Your task to perform on an android device: turn notification dots off Image 0: 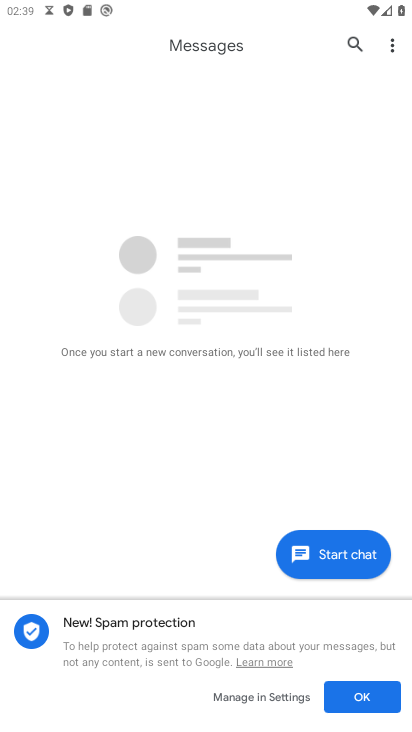
Step 0: press home button
Your task to perform on an android device: turn notification dots off Image 1: 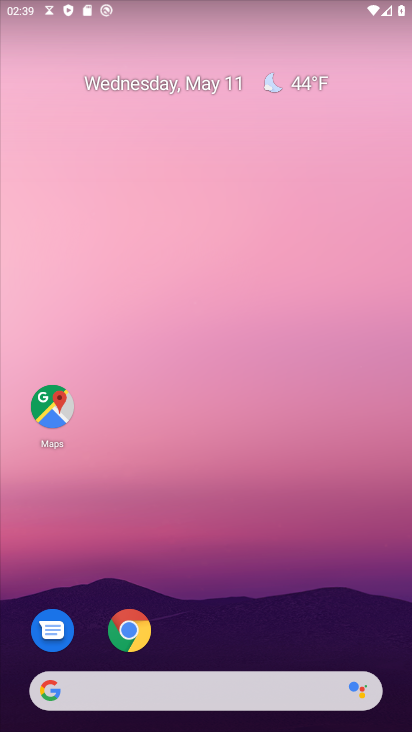
Step 1: drag from (225, 728) to (223, 264)
Your task to perform on an android device: turn notification dots off Image 2: 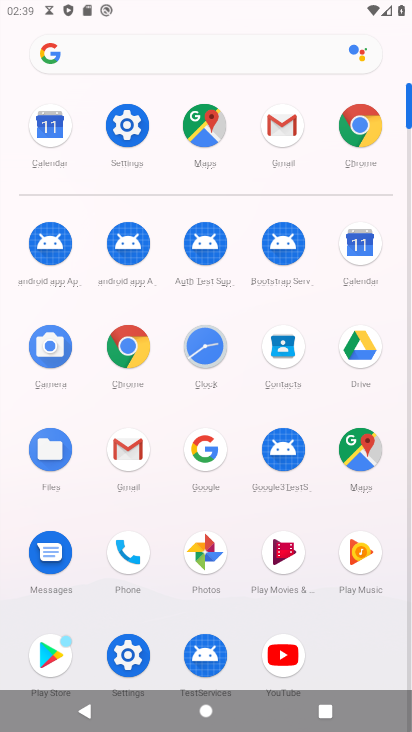
Step 2: click (130, 137)
Your task to perform on an android device: turn notification dots off Image 3: 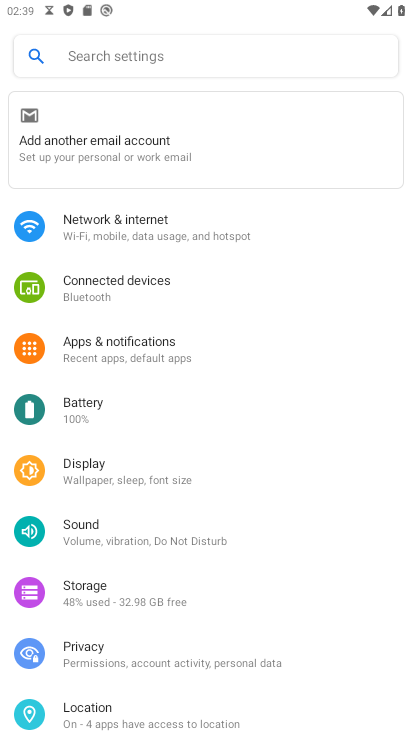
Step 3: click (143, 348)
Your task to perform on an android device: turn notification dots off Image 4: 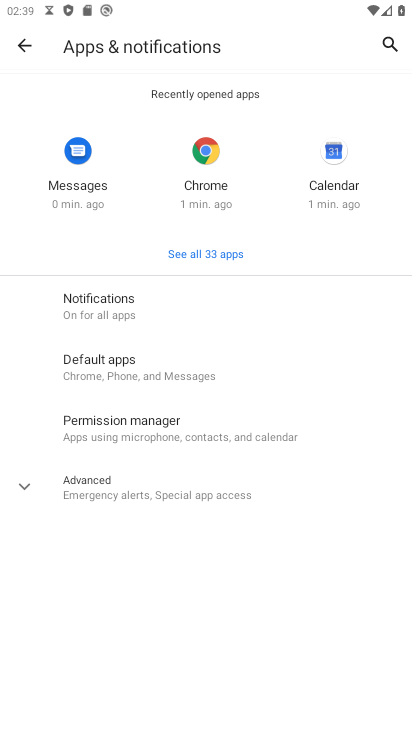
Step 4: click (91, 308)
Your task to perform on an android device: turn notification dots off Image 5: 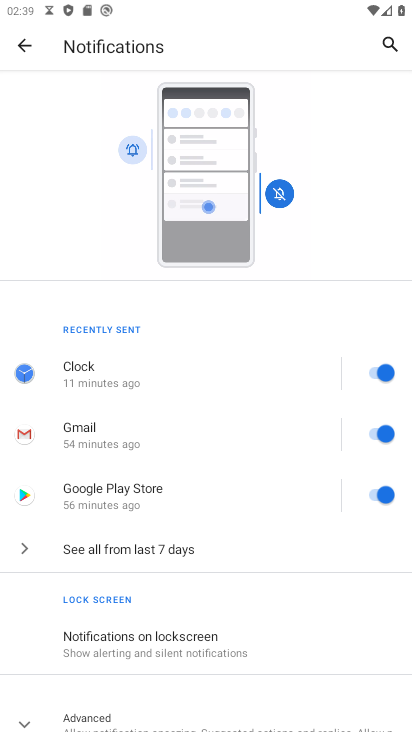
Step 5: drag from (231, 673) to (219, 332)
Your task to perform on an android device: turn notification dots off Image 6: 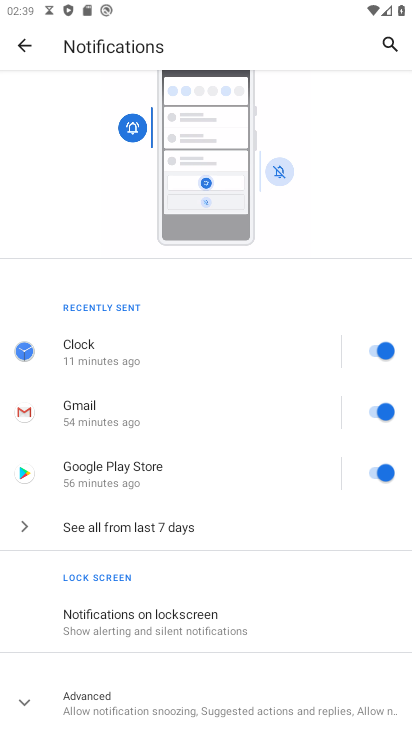
Step 6: click (112, 694)
Your task to perform on an android device: turn notification dots off Image 7: 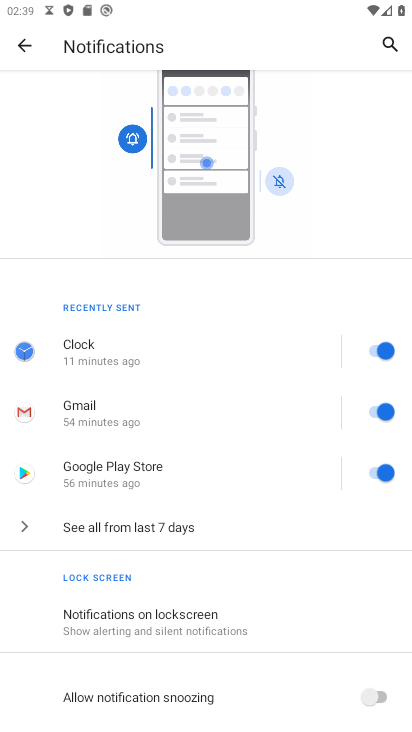
Step 7: drag from (265, 700) to (246, 294)
Your task to perform on an android device: turn notification dots off Image 8: 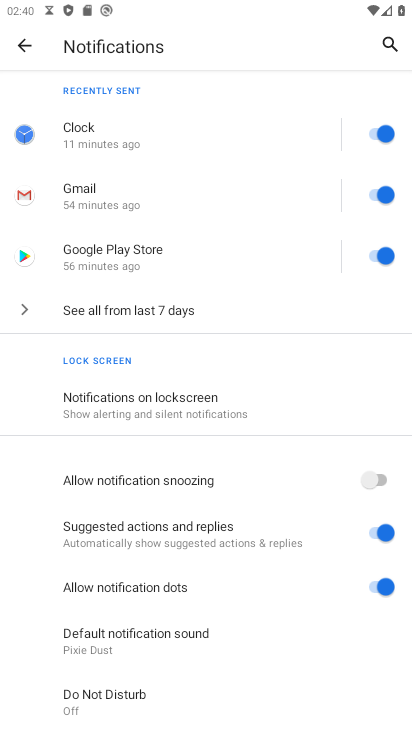
Step 8: click (369, 587)
Your task to perform on an android device: turn notification dots off Image 9: 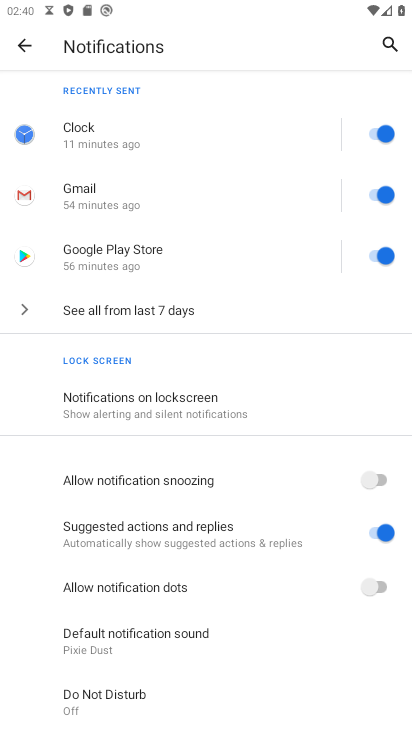
Step 9: task complete